Your task to perform on an android device: Search for a new water heater on Home Depot Image 0: 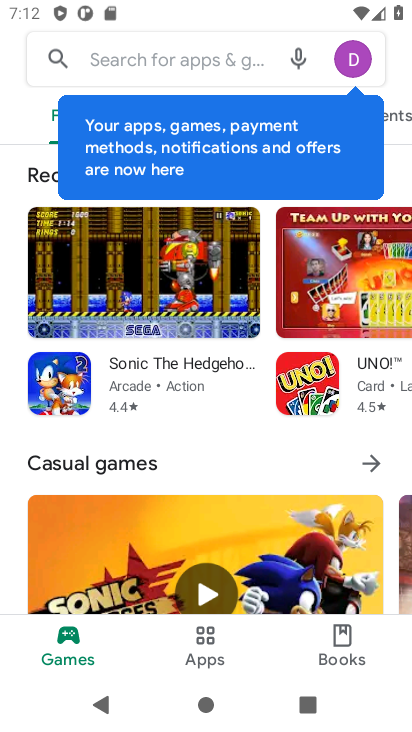
Step 0: press home button
Your task to perform on an android device: Search for a new water heater on Home Depot Image 1: 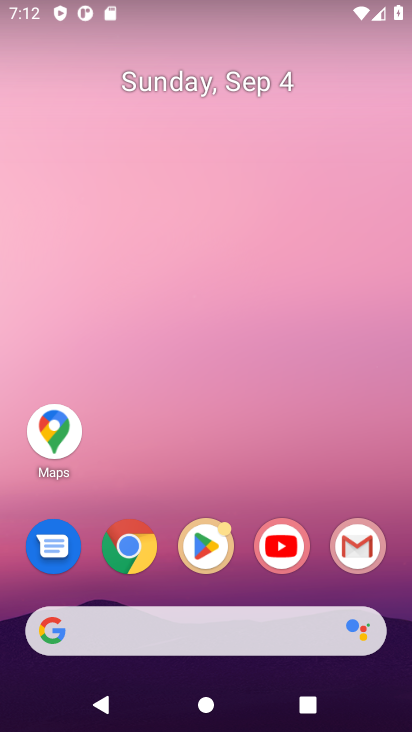
Step 1: click (402, 346)
Your task to perform on an android device: Search for a new water heater on Home Depot Image 2: 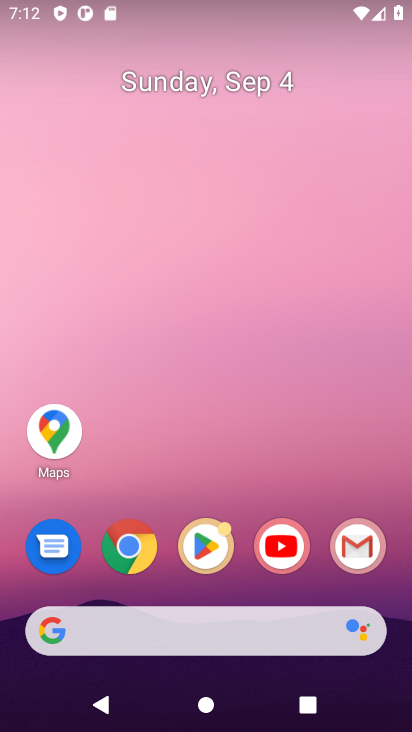
Step 2: click (134, 558)
Your task to perform on an android device: Search for a new water heater on Home Depot Image 3: 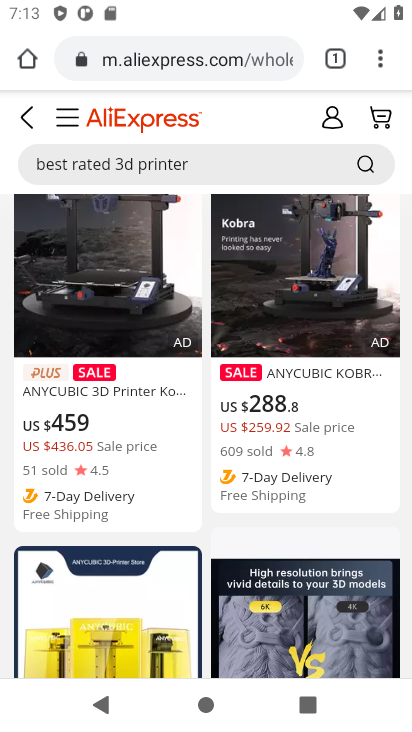
Step 3: click (217, 47)
Your task to perform on an android device: Search for a new water heater on Home Depot Image 4: 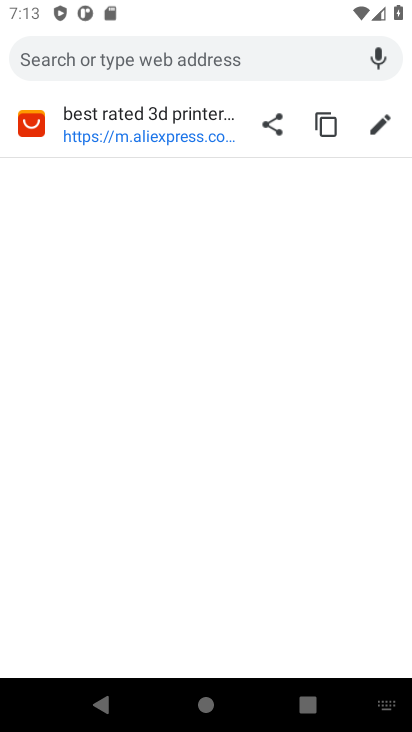
Step 4: type "Home Depot"
Your task to perform on an android device: Search for a new water heater on Home Depot Image 5: 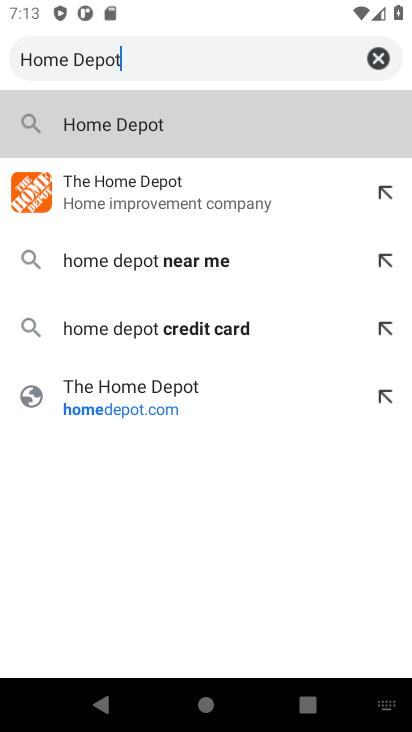
Step 5: click (94, 128)
Your task to perform on an android device: Search for a new water heater on Home Depot Image 6: 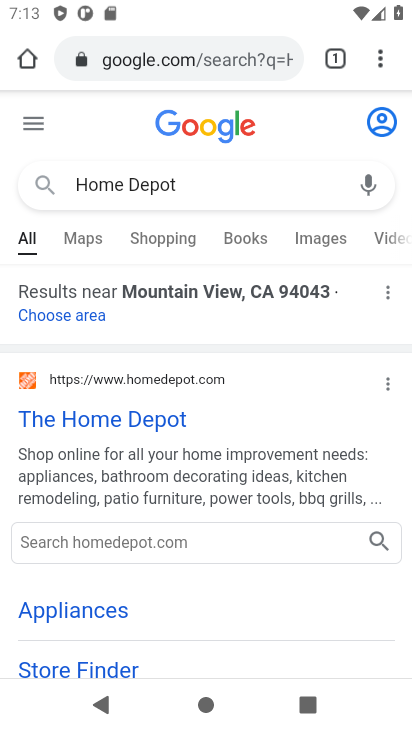
Step 6: click (58, 427)
Your task to perform on an android device: Search for a new water heater on Home Depot Image 7: 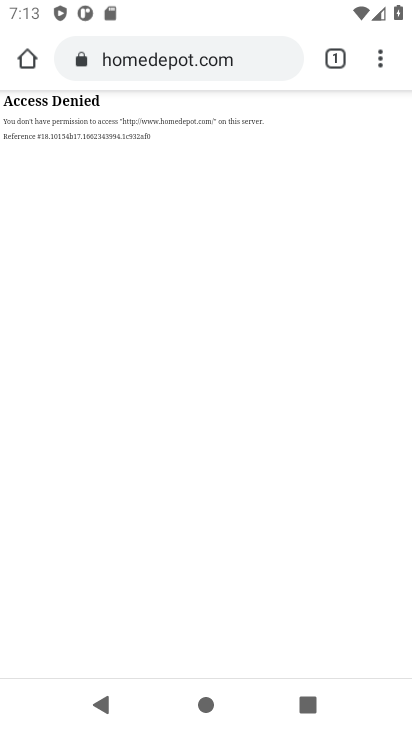
Step 7: task complete